Your task to perform on an android device: Add "razer huntsman" to the cart on ebay.com, then select checkout. Image 0: 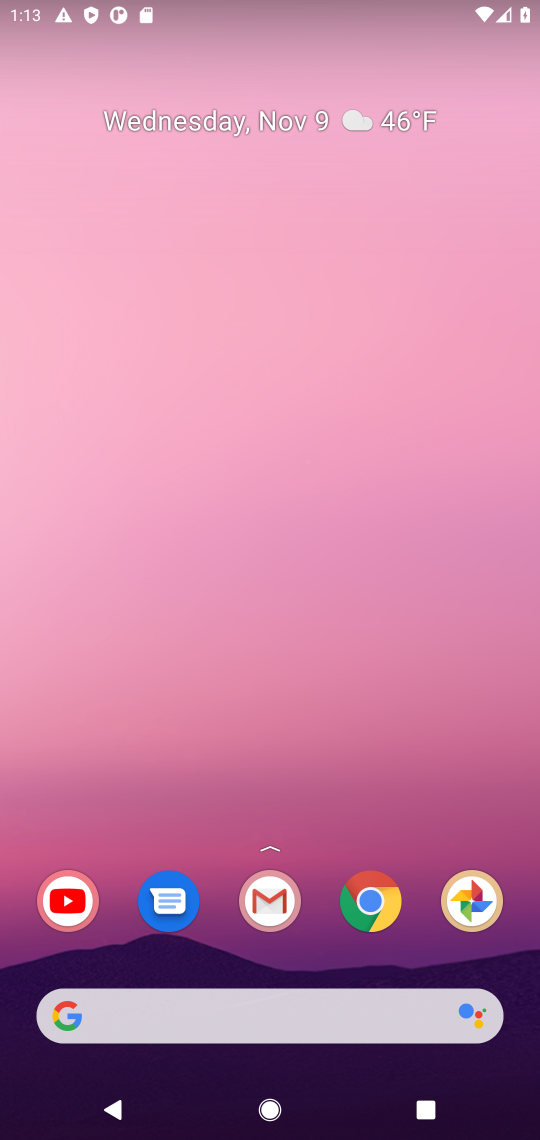
Step 0: click (388, 903)
Your task to perform on an android device: Add "razer huntsman" to the cart on ebay.com, then select checkout. Image 1: 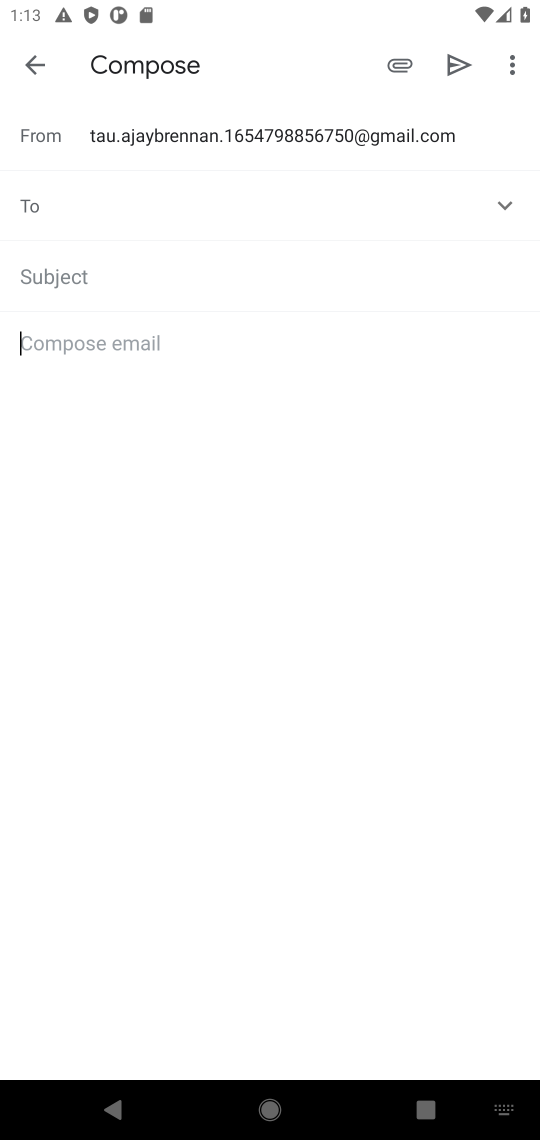
Step 1: press home button
Your task to perform on an android device: Add "razer huntsman" to the cart on ebay.com, then select checkout. Image 2: 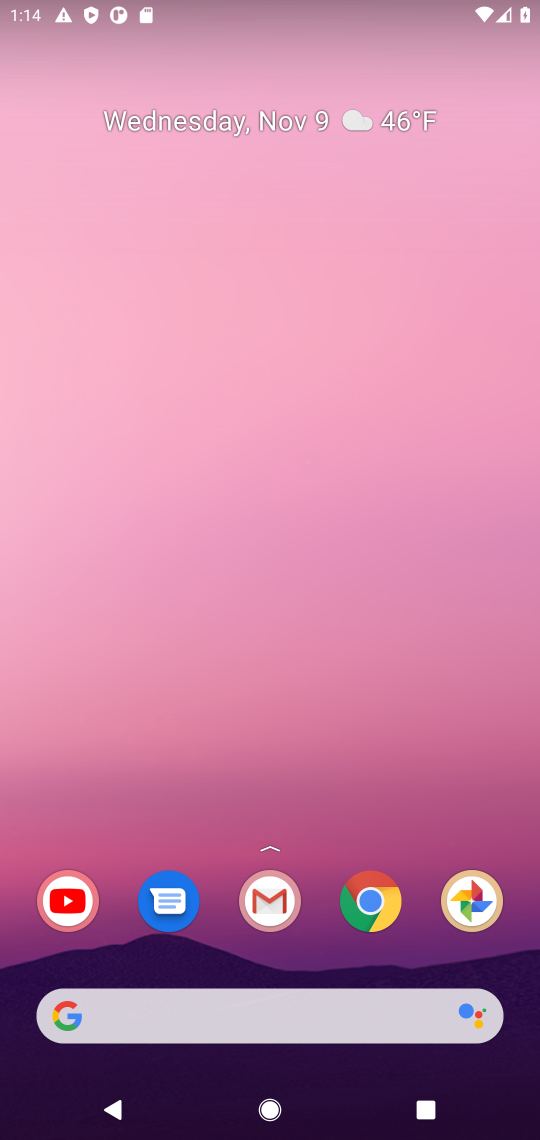
Step 2: click (372, 907)
Your task to perform on an android device: Add "razer huntsman" to the cart on ebay.com, then select checkout. Image 3: 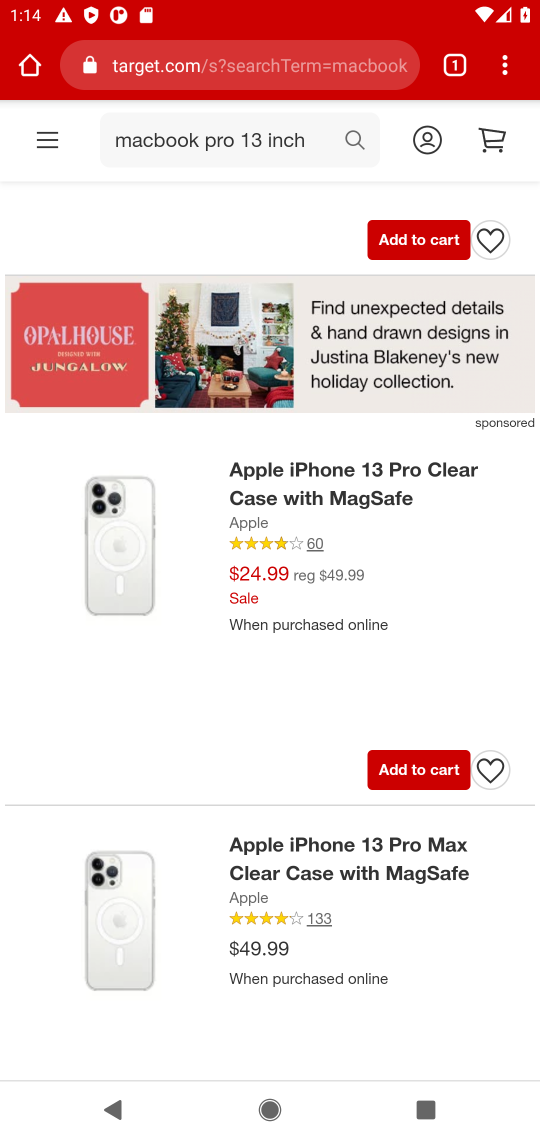
Step 3: click (216, 62)
Your task to perform on an android device: Add "razer huntsman" to the cart on ebay.com, then select checkout. Image 4: 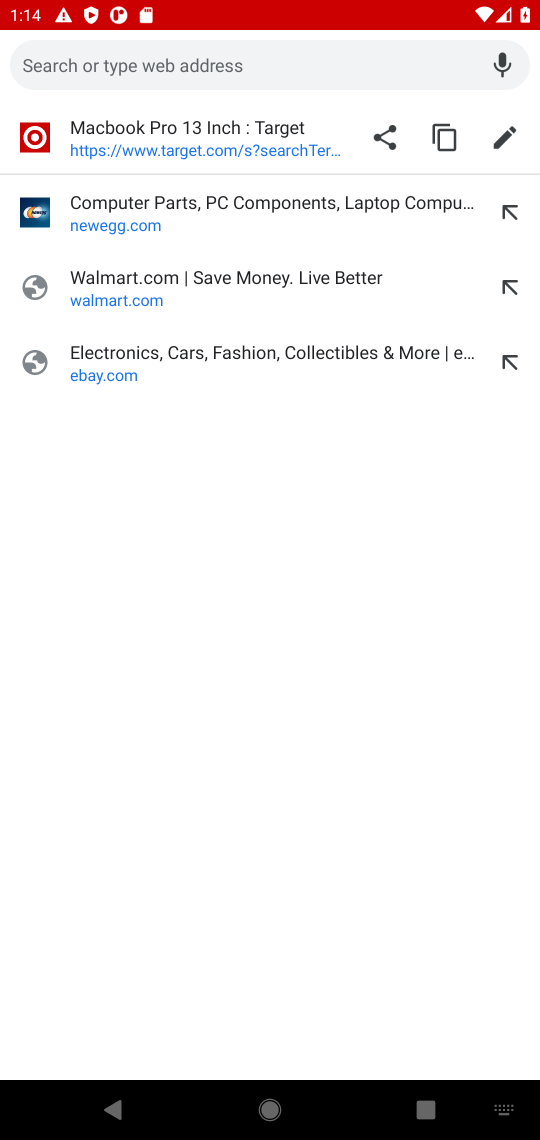
Step 4: type "ebay.com"
Your task to perform on an android device: Add "razer huntsman" to the cart on ebay.com, then select checkout. Image 5: 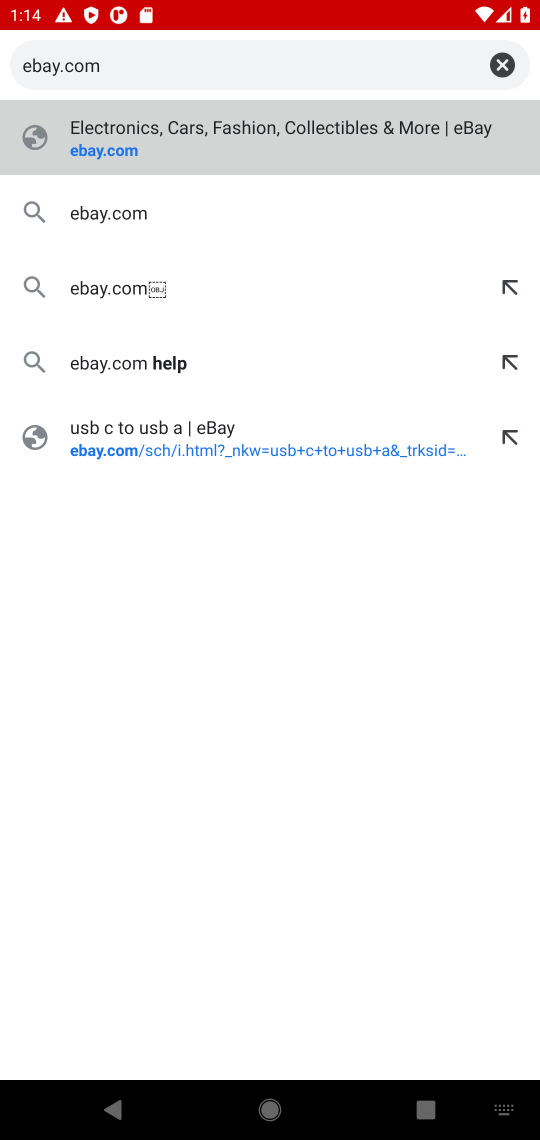
Step 5: press enter
Your task to perform on an android device: Add "razer huntsman" to the cart on ebay.com, then select checkout. Image 6: 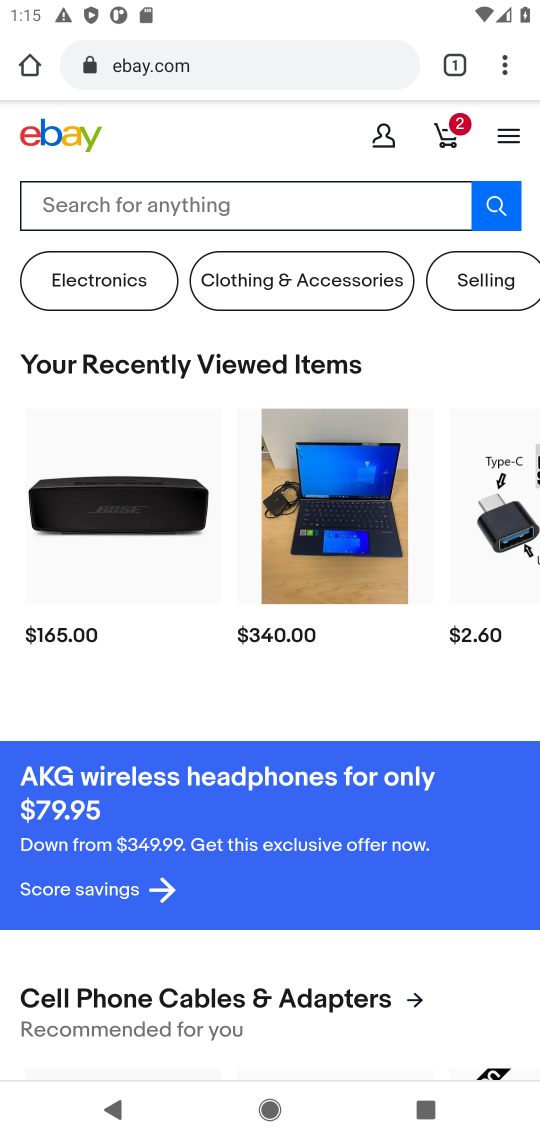
Step 6: click (393, 212)
Your task to perform on an android device: Add "razer huntsman" to the cart on ebay.com, then select checkout. Image 7: 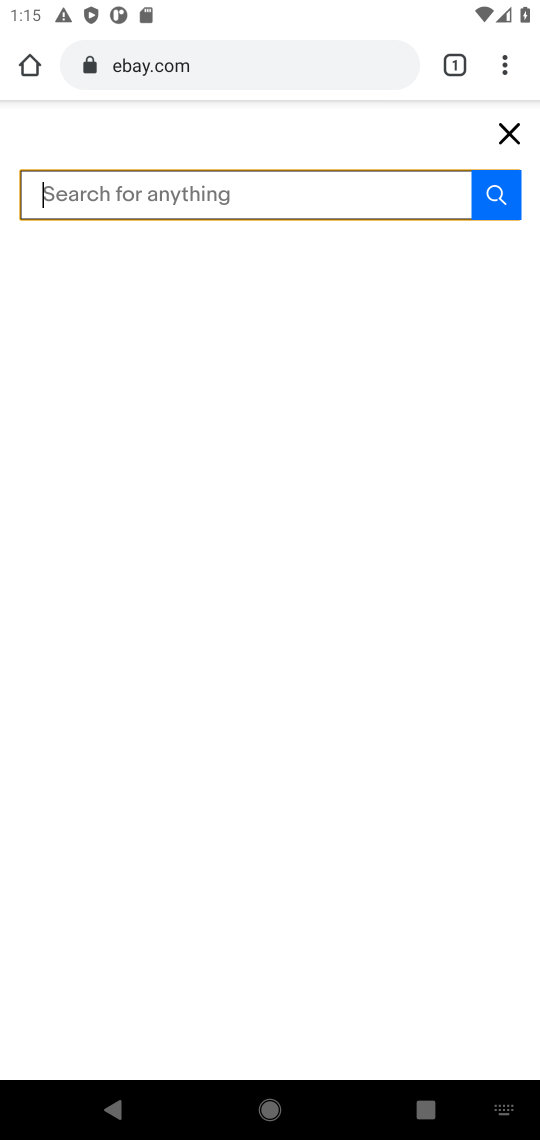
Step 7: type "razer huntsman"
Your task to perform on an android device: Add "razer huntsman" to the cart on ebay.com, then select checkout. Image 8: 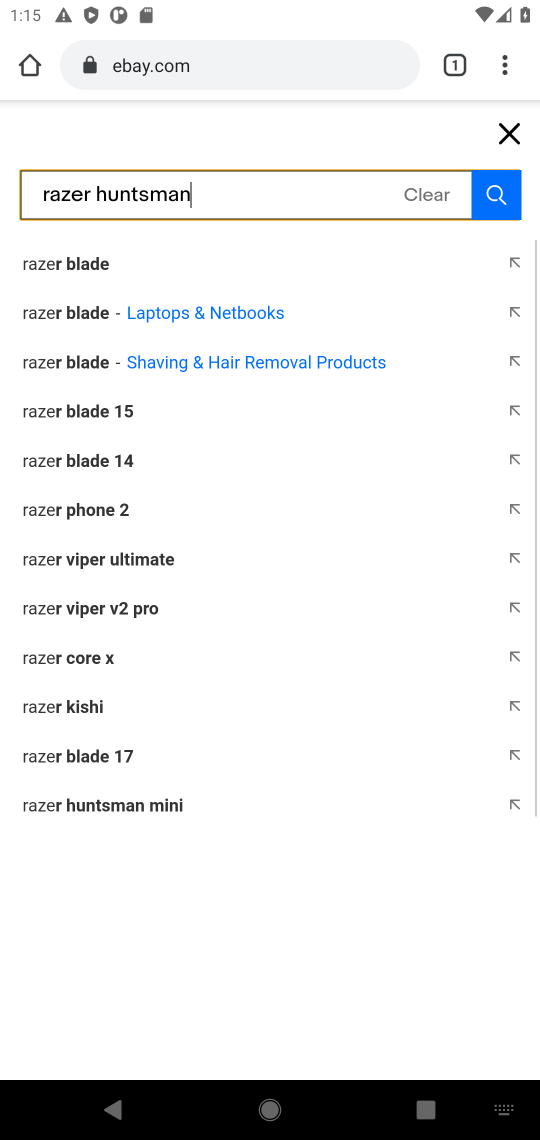
Step 8: press enter
Your task to perform on an android device: Add "razer huntsman" to the cart on ebay.com, then select checkout. Image 9: 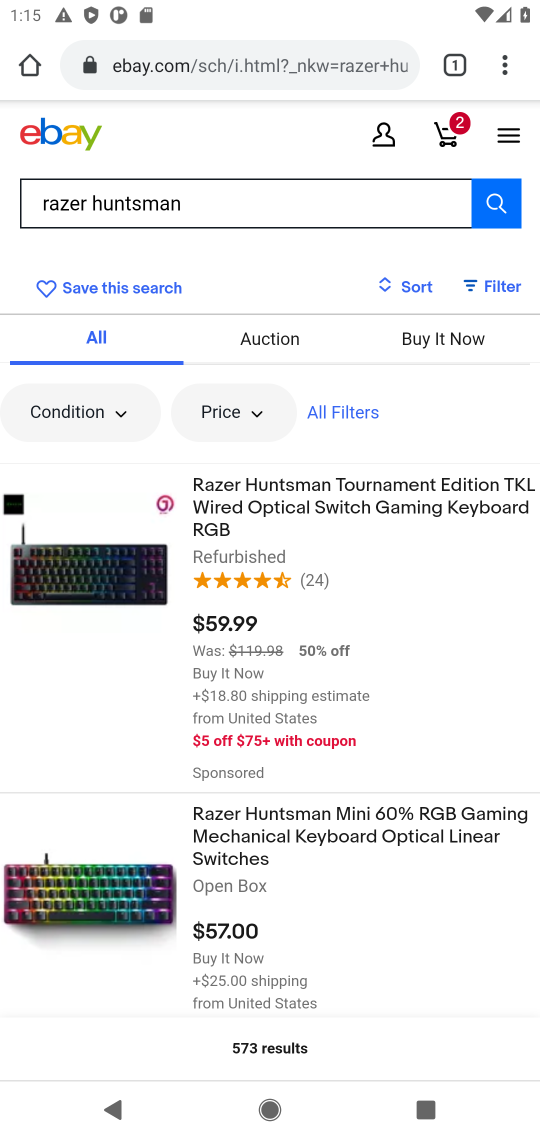
Step 9: click (378, 482)
Your task to perform on an android device: Add "razer huntsman" to the cart on ebay.com, then select checkout. Image 10: 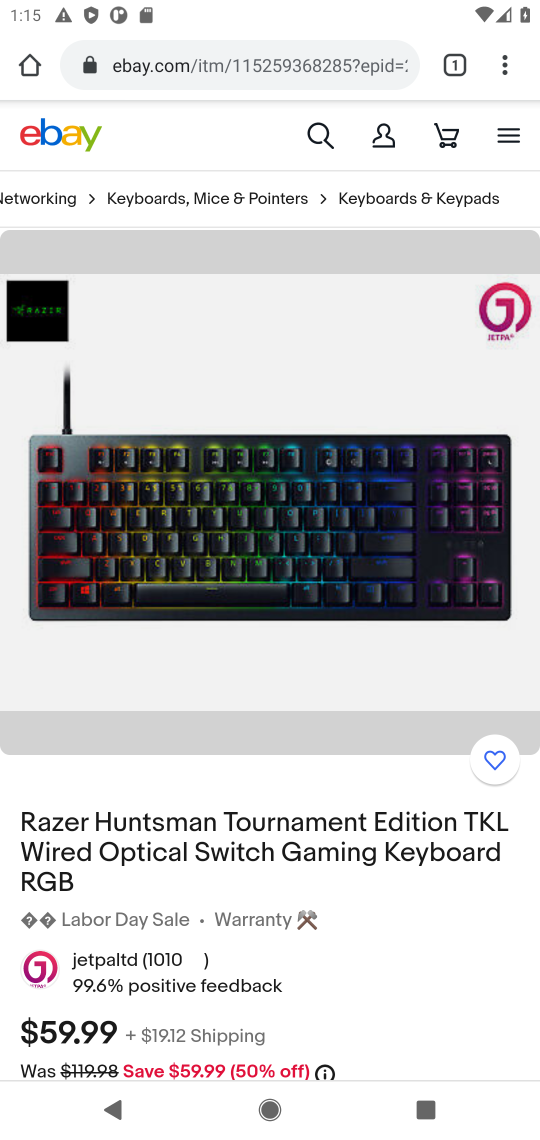
Step 10: drag from (408, 851) to (418, 248)
Your task to perform on an android device: Add "razer huntsman" to the cart on ebay.com, then select checkout. Image 11: 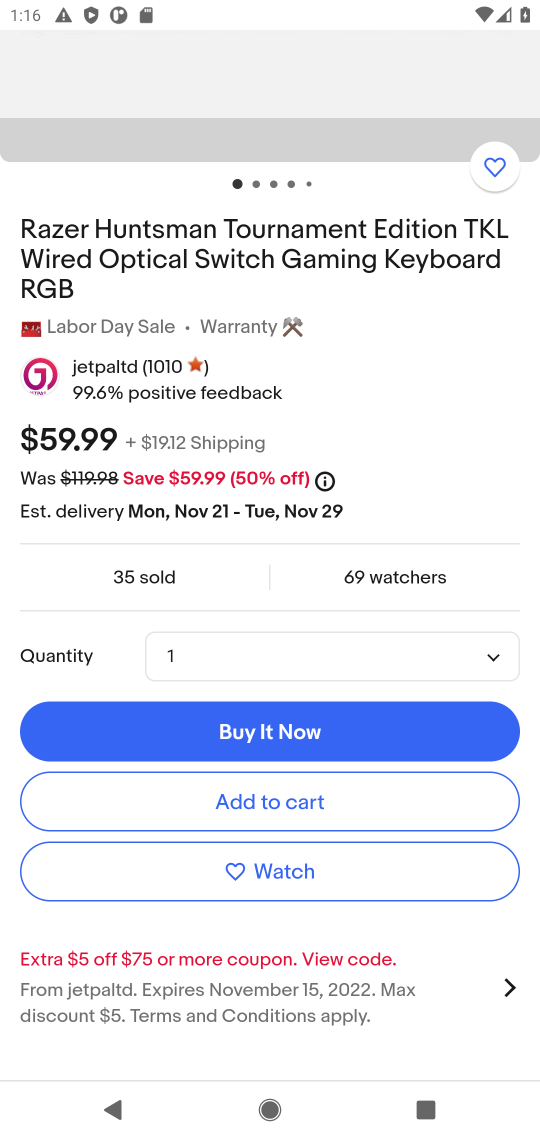
Step 11: click (270, 797)
Your task to perform on an android device: Add "razer huntsman" to the cart on ebay.com, then select checkout. Image 12: 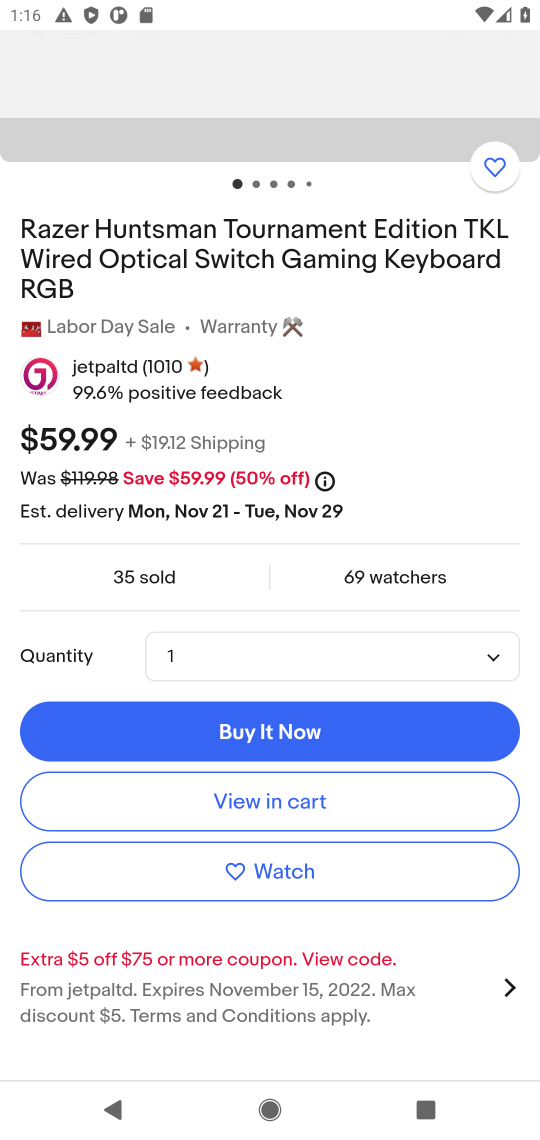
Step 12: click (270, 797)
Your task to perform on an android device: Add "razer huntsman" to the cart on ebay.com, then select checkout. Image 13: 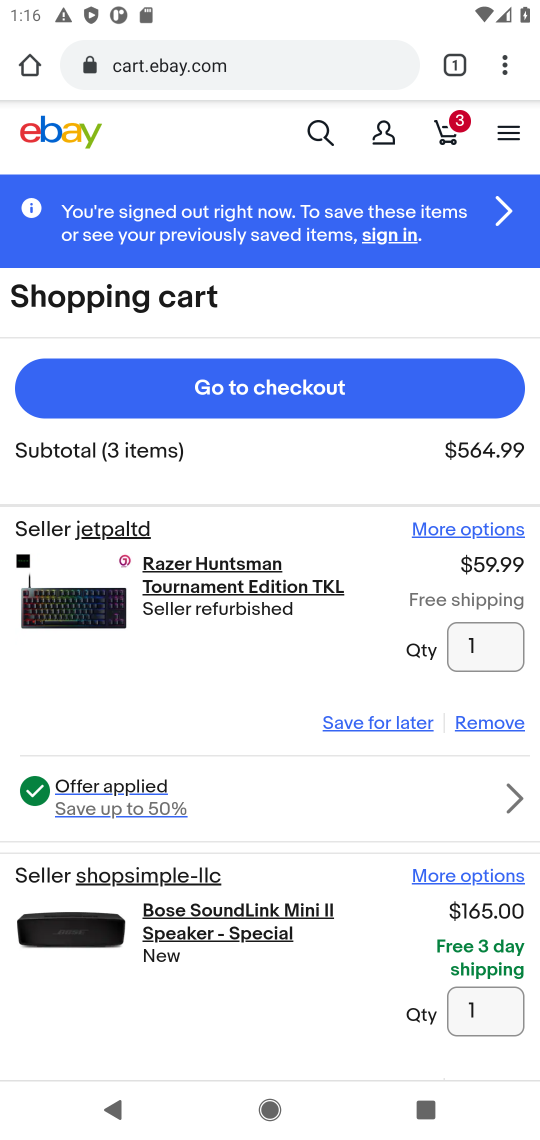
Step 13: click (299, 393)
Your task to perform on an android device: Add "razer huntsman" to the cart on ebay.com, then select checkout. Image 14: 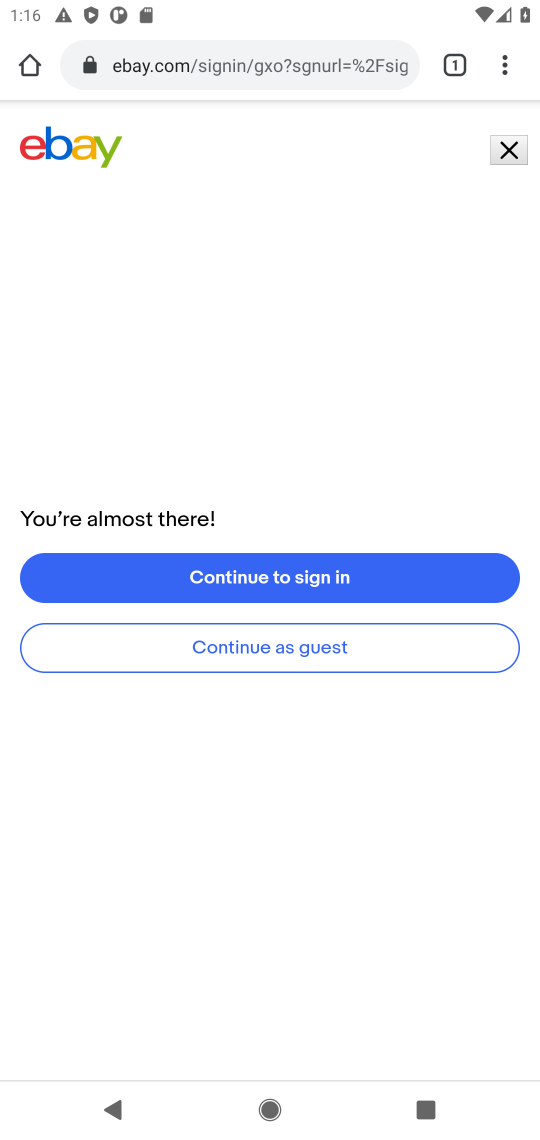
Step 14: task complete